Your task to perform on an android device: change the upload size in google photos Image 0: 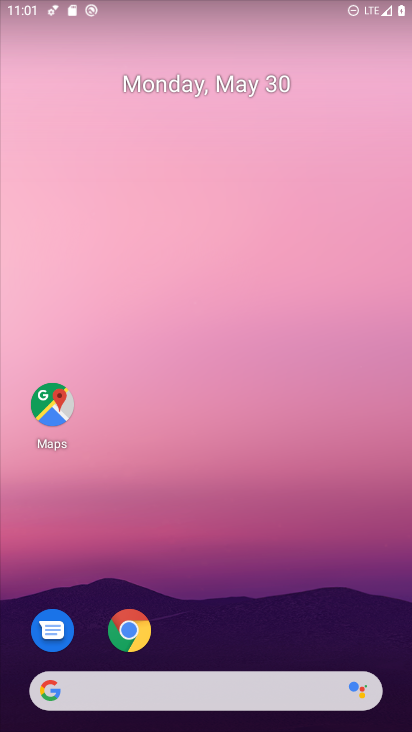
Step 0: drag from (242, 569) to (301, 210)
Your task to perform on an android device: change the upload size in google photos Image 1: 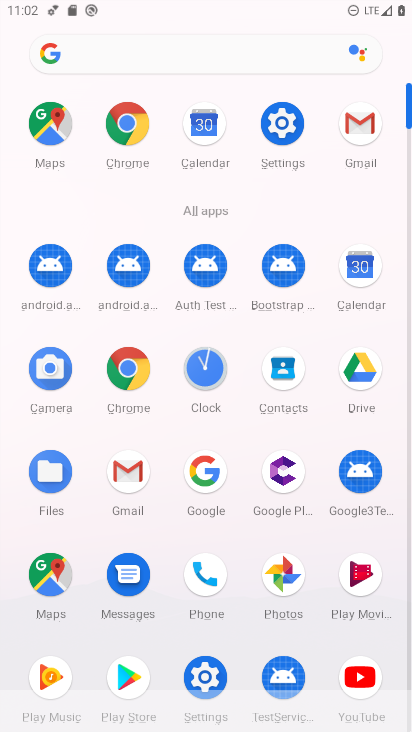
Step 1: click (282, 570)
Your task to perform on an android device: change the upload size in google photos Image 2: 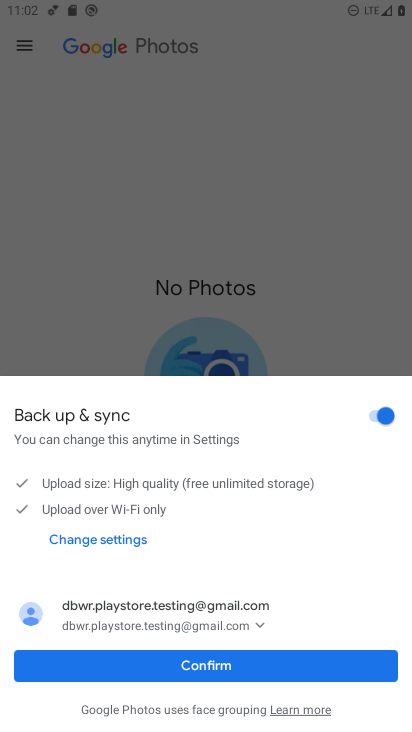
Step 2: click (306, 671)
Your task to perform on an android device: change the upload size in google photos Image 3: 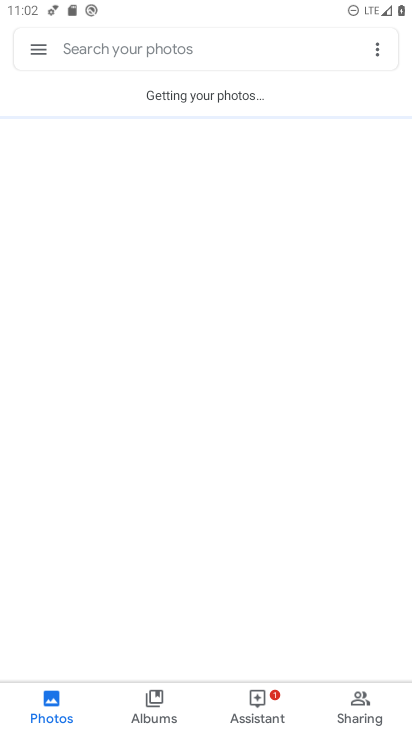
Step 3: click (42, 45)
Your task to perform on an android device: change the upload size in google photos Image 4: 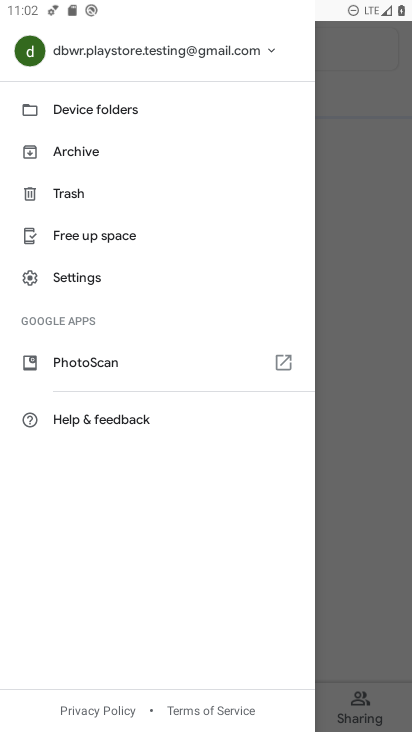
Step 4: click (43, 44)
Your task to perform on an android device: change the upload size in google photos Image 5: 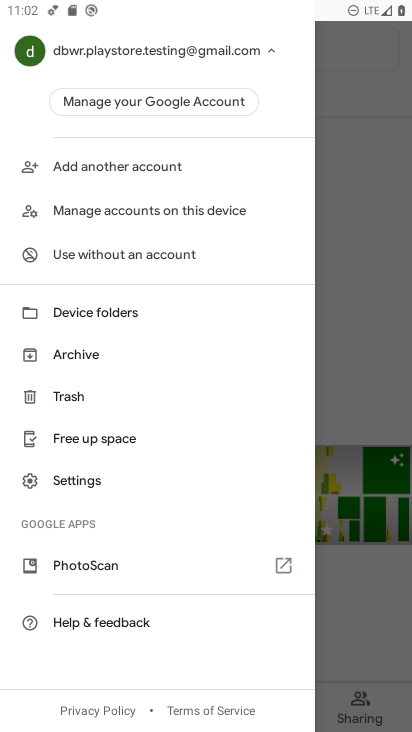
Step 5: click (102, 472)
Your task to perform on an android device: change the upload size in google photos Image 6: 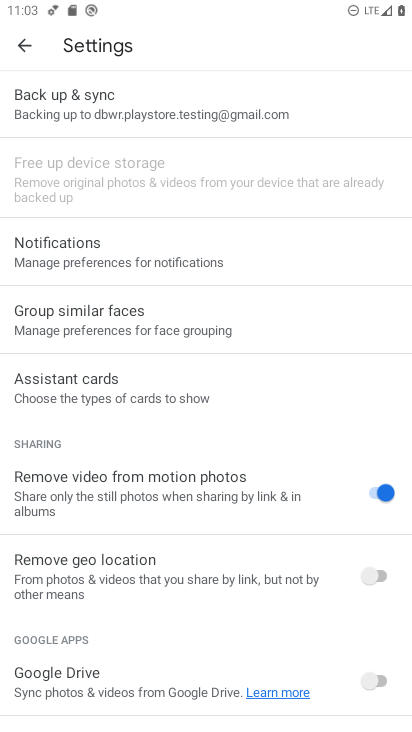
Step 6: click (216, 100)
Your task to perform on an android device: change the upload size in google photos Image 7: 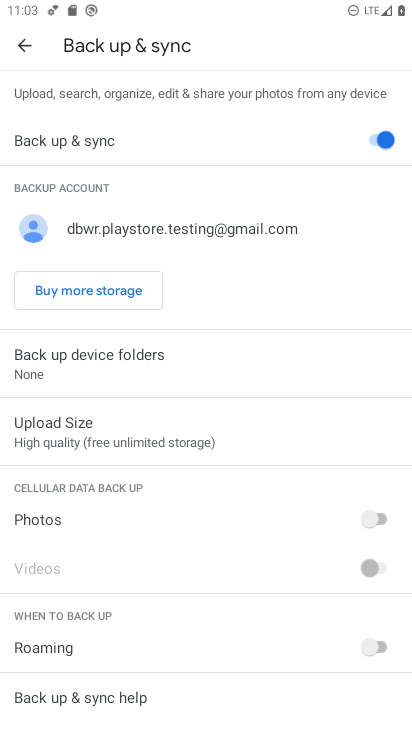
Step 7: click (112, 442)
Your task to perform on an android device: change the upload size in google photos Image 8: 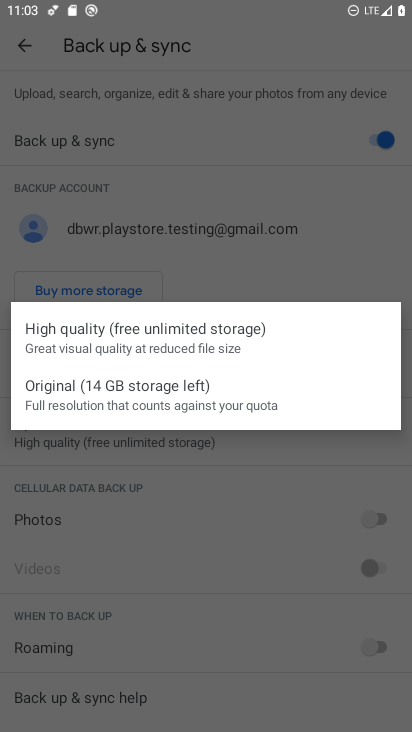
Step 8: click (157, 324)
Your task to perform on an android device: change the upload size in google photos Image 9: 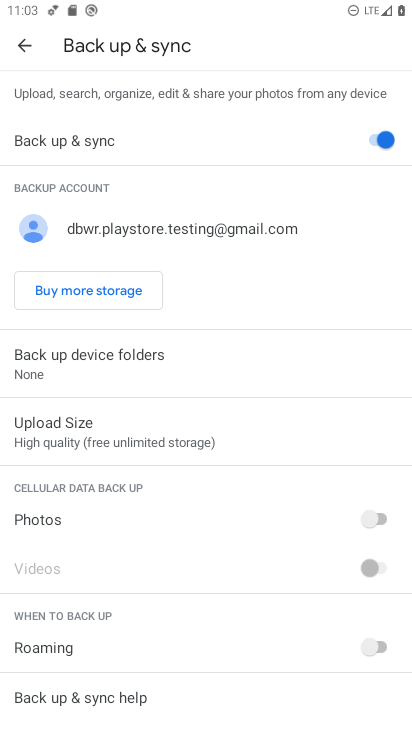
Step 9: click (95, 423)
Your task to perform on an android device: change the upload size in google photos Image 10: 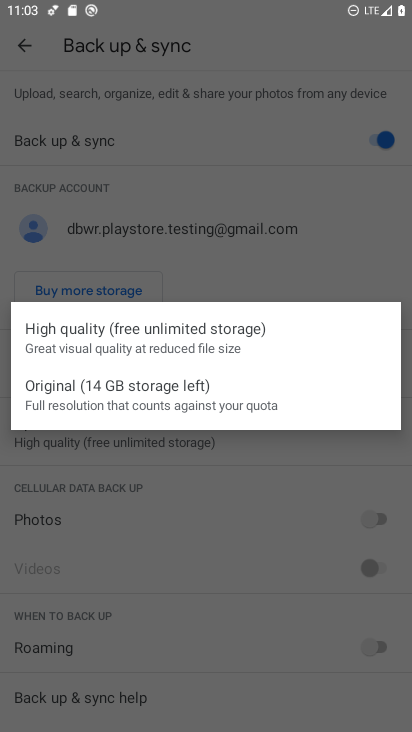
Step 10: click (159, 404)
Your task to perform on an android device: change the upload size in google photos Image 11: 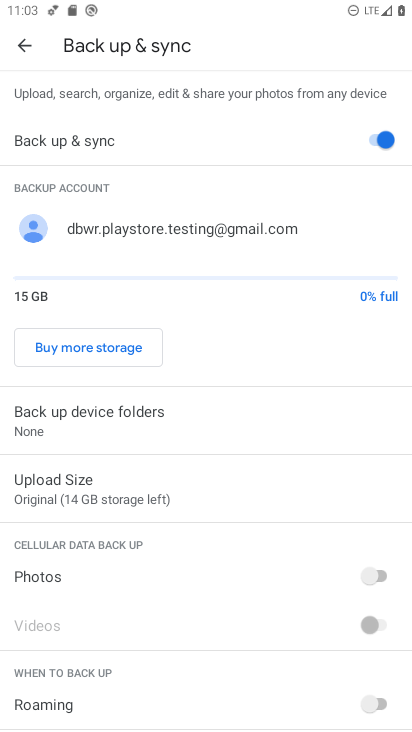
Step 11: task complete